Your task to perform on an android device: toggle notifications settings in the gmail app Image 0: 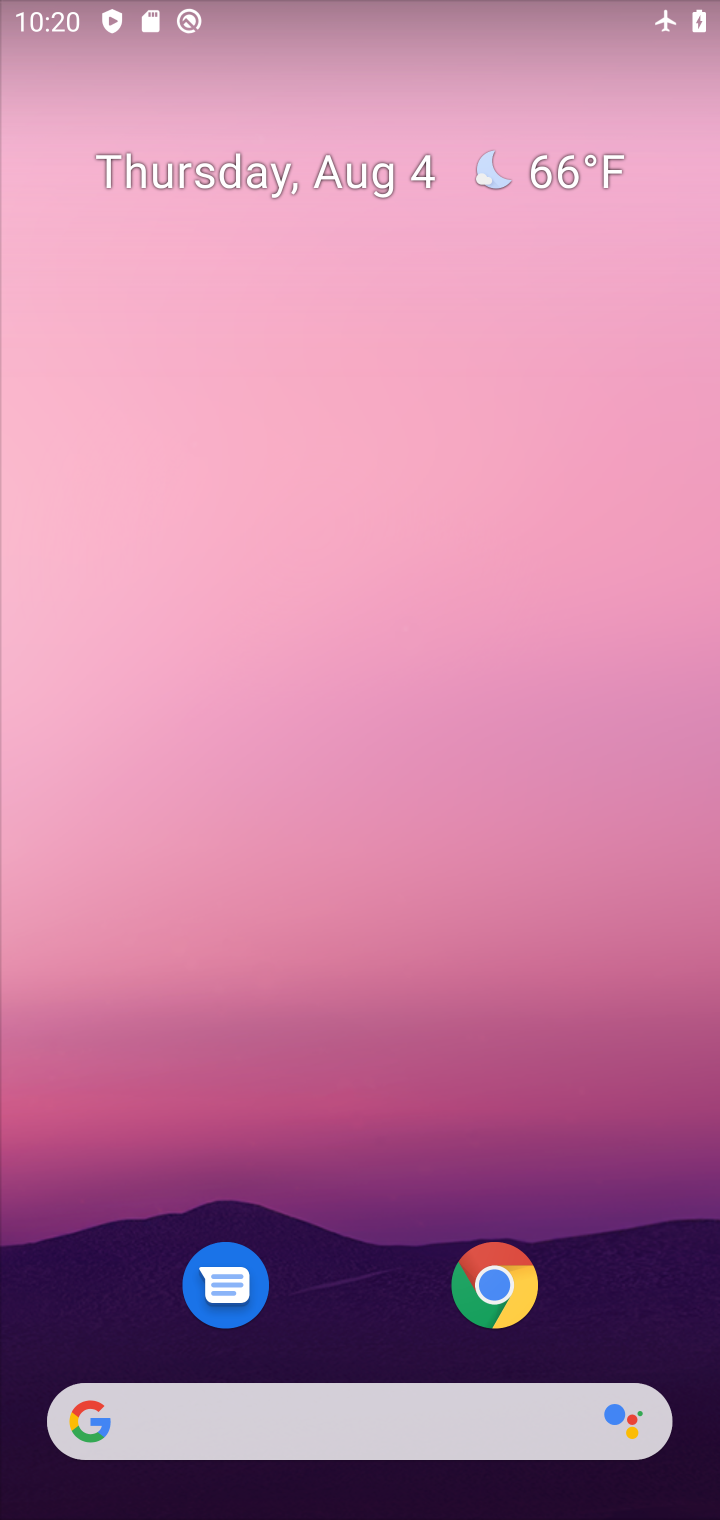
Step 0: drag from (331, 1245) to (364, 93)
Your task to perform on an android device: toggle notifications settings in the gmail app Image 1: 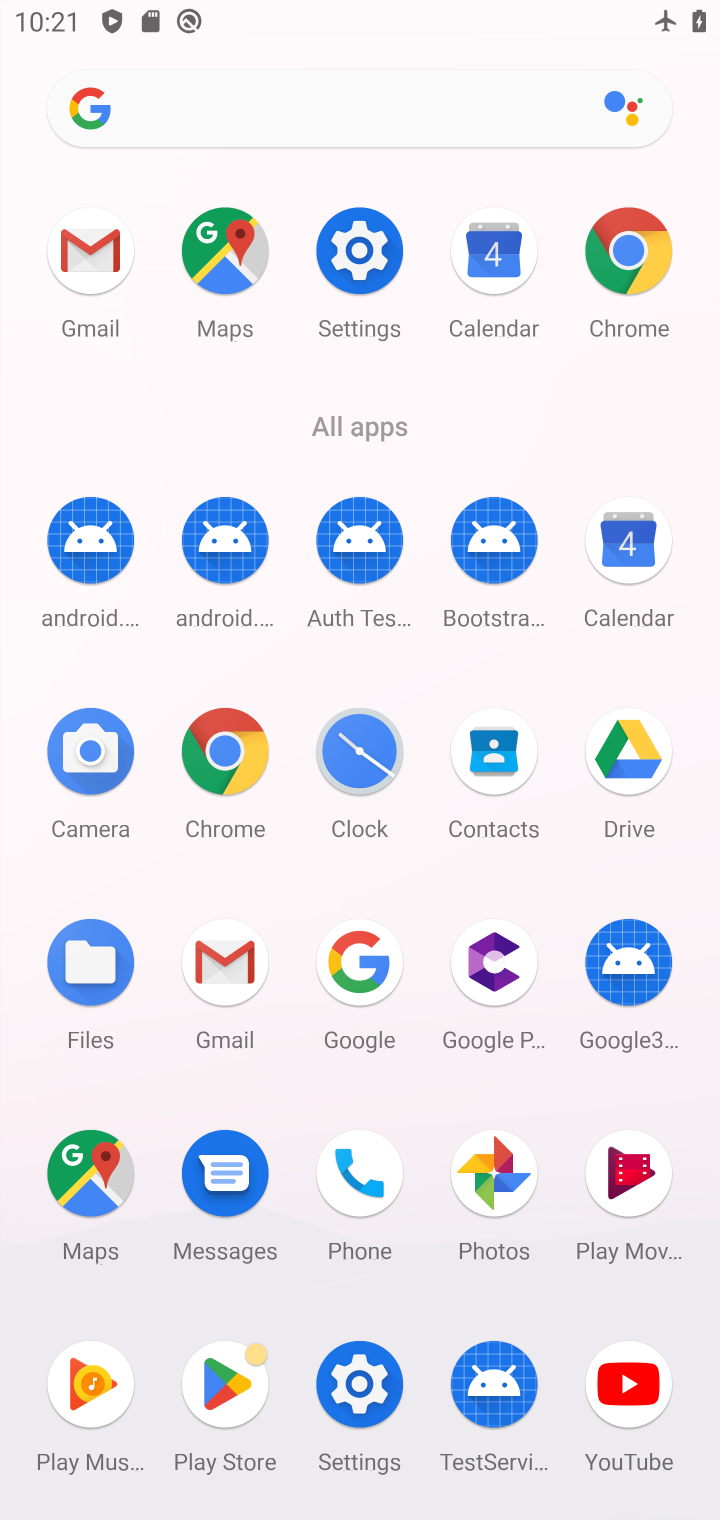
Step 1: click (234, 955)
Your task to perform on an android device: toggle notifications settings in the gmail app Image 2: 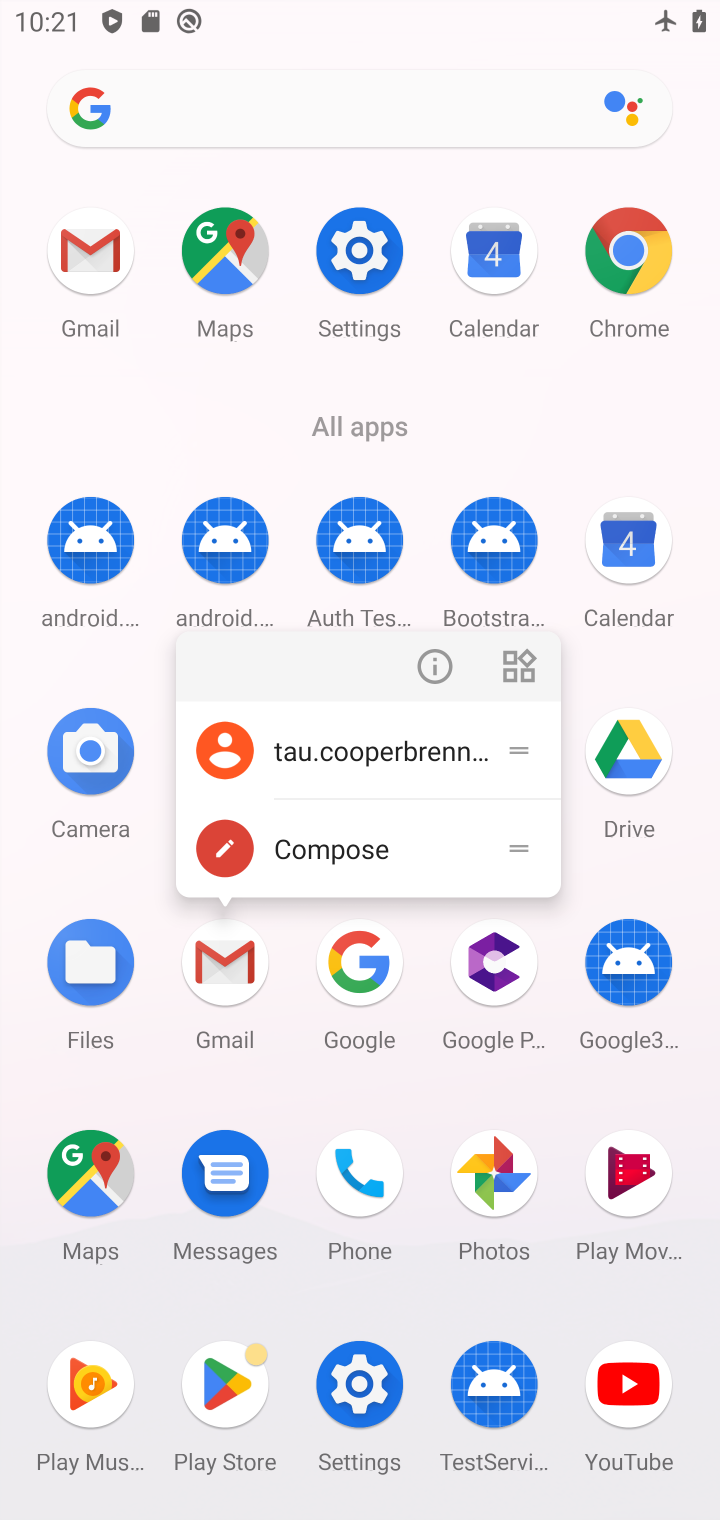
Step 2: click (423, 655)
Your task to perform on an android device: toggle notifications settings in the gmail app Image 3: 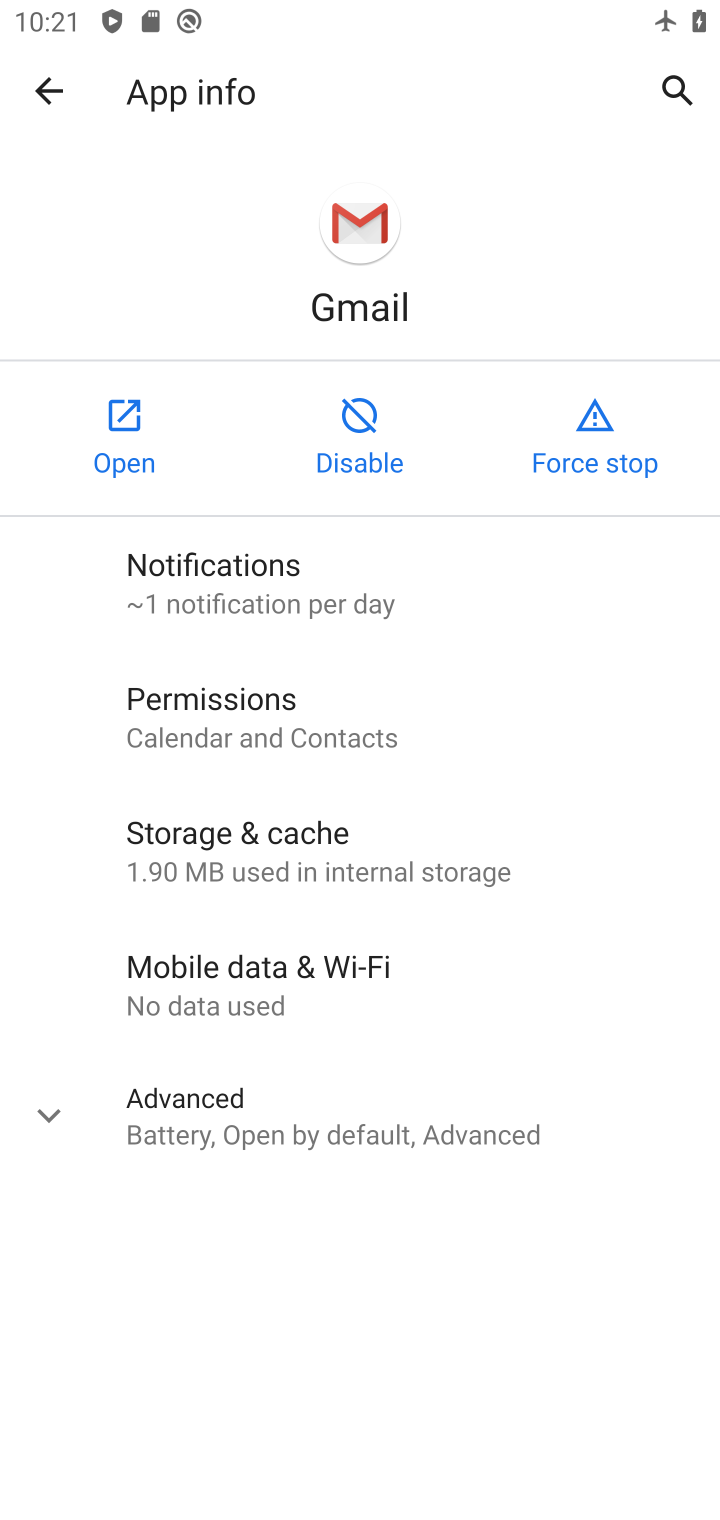
Step 3: click (213, 570)
Your task to perform on an android device: toggle notifications settings in the gmail app Image 4: 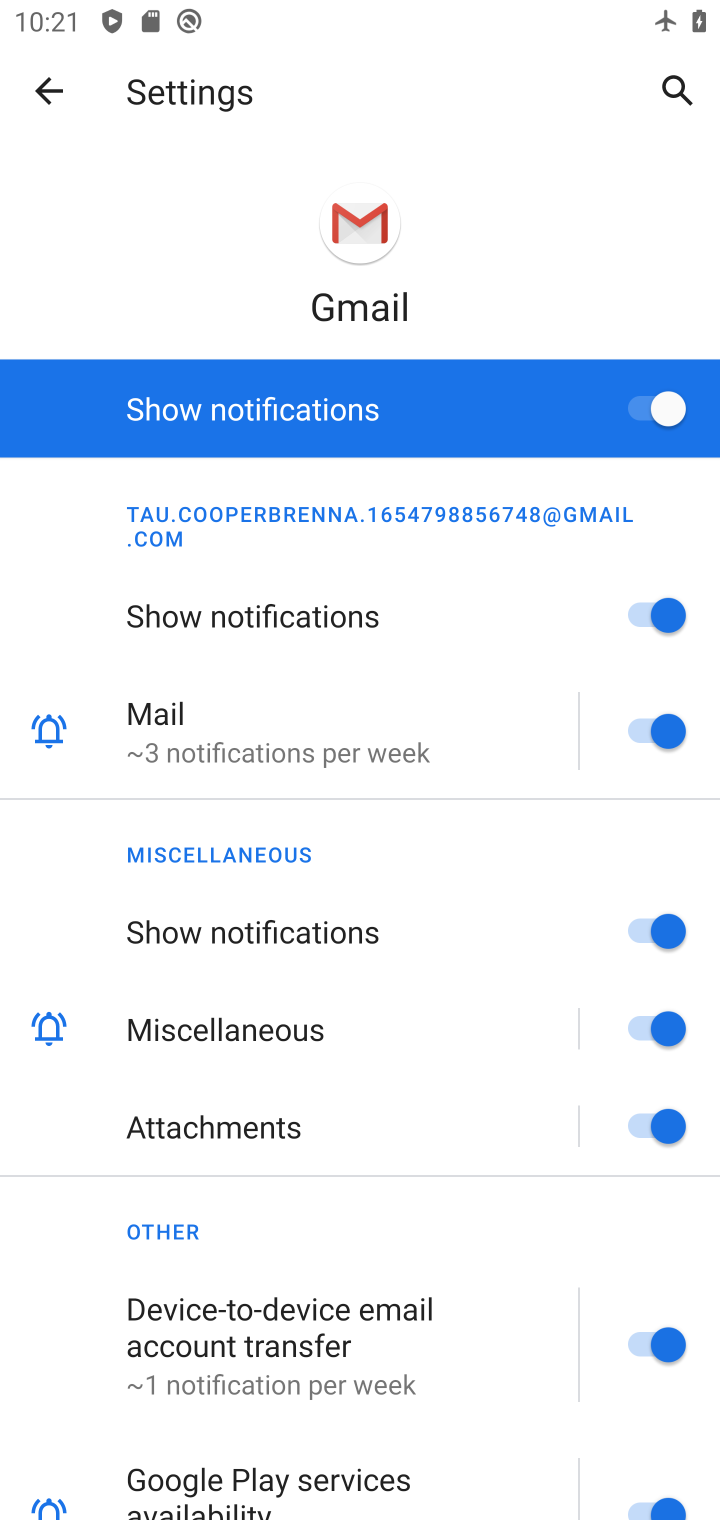
Step 4: click (447, 388)
Your task to perform on an android device: toggle notifications settings in the gmail app Image 5: 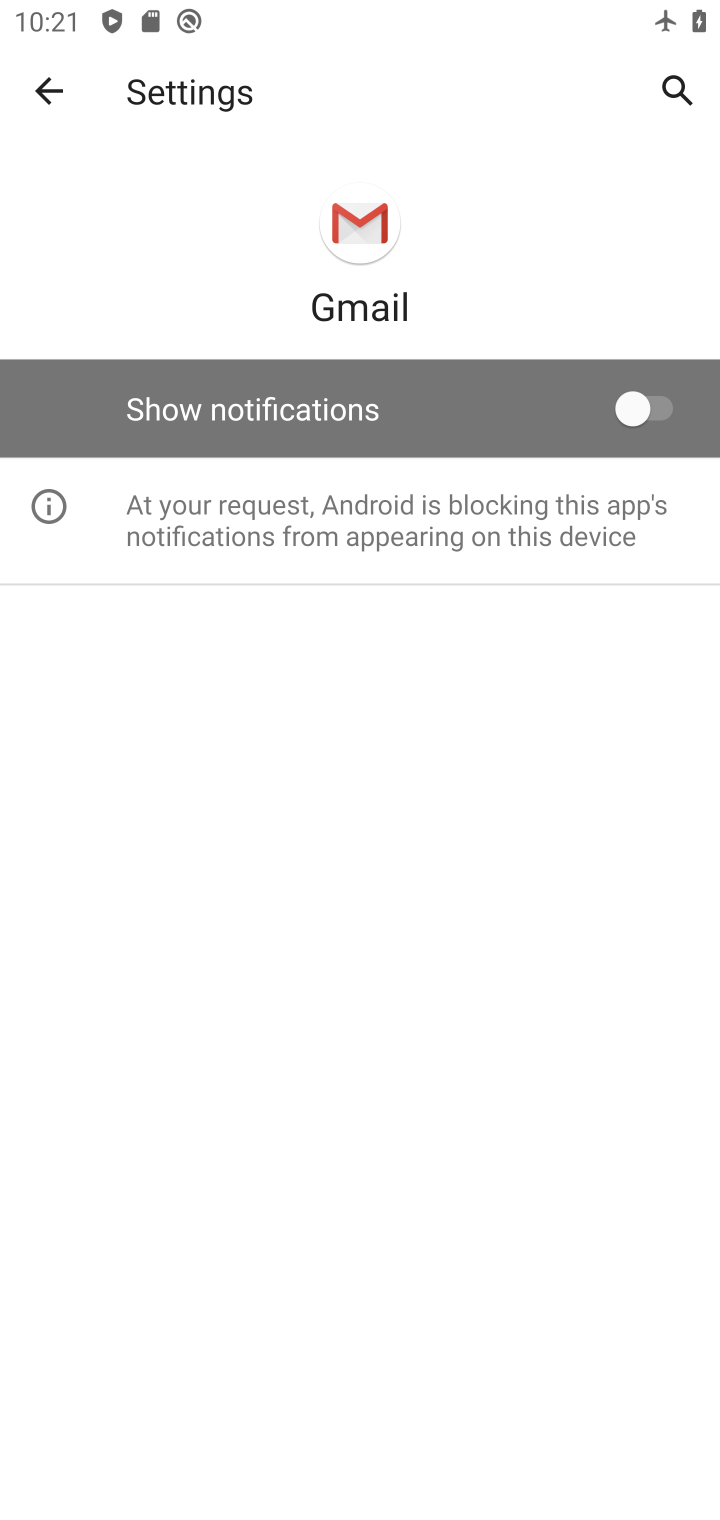
Step 5: task complete